Your task to perform on an android device: Open the calendar app, open the side menu, and click the "Day" option Image 0: 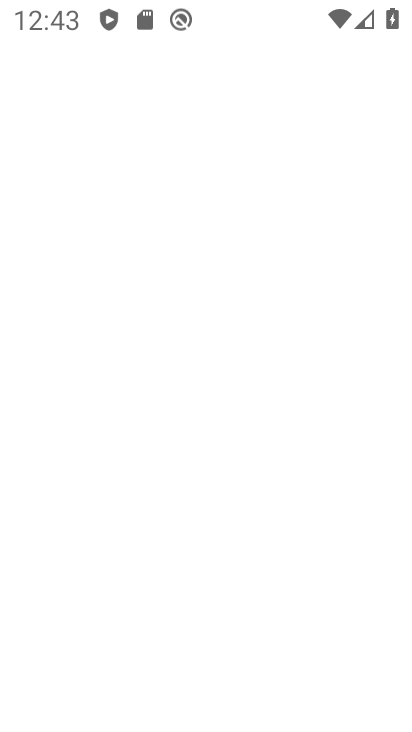
Step 0: click (359, 529)
Your task to perform on an android device: Open the calendar app, open the side menu, and click the "Day" option Image 1: 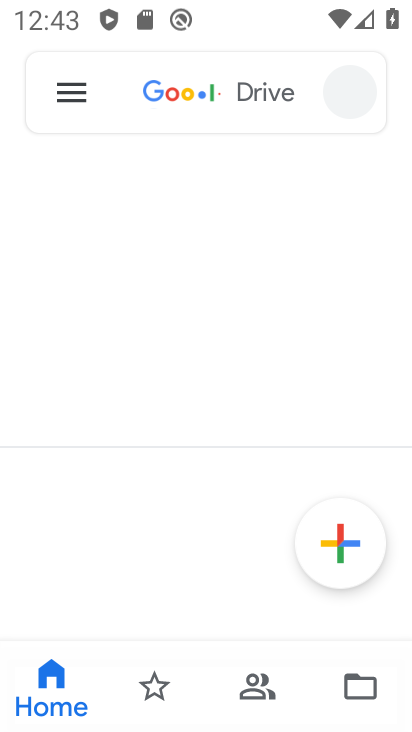
Step 1: press home button
Your task to perform on an android device: Open the calendar app, open the side menu, and click the "Day" option Image 2: 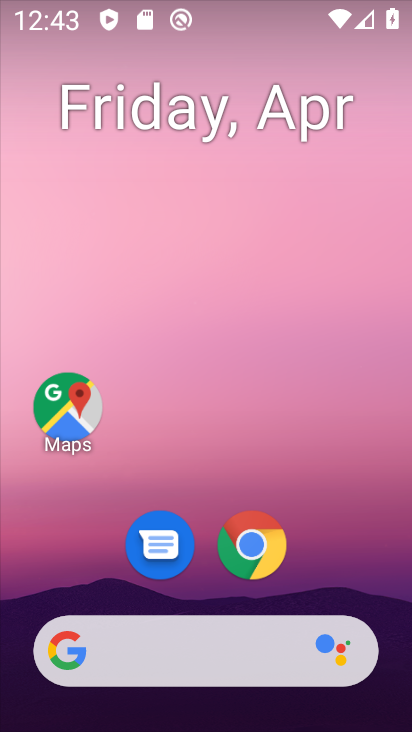
Step 2: drag from (237, 360) to (224, 6)
Your task to perform on an android device: Open the calendar app, open the side menu, and click the "Day" option Image 3: 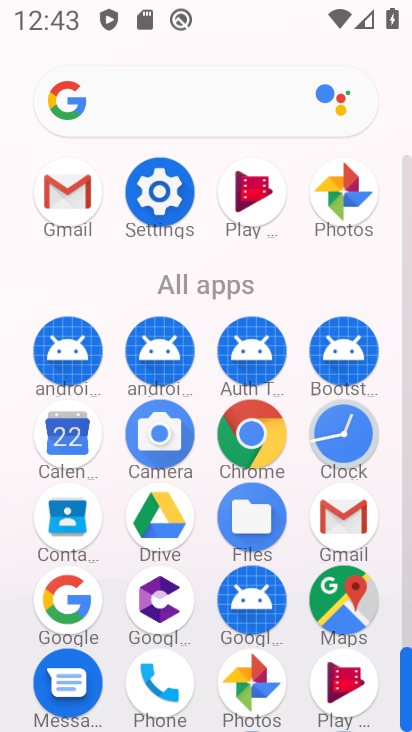
Step 3: click (61, 426)
Your task to perform on an android device: Open the calendar app, open the side menu, and click the "Day" option Image 4: 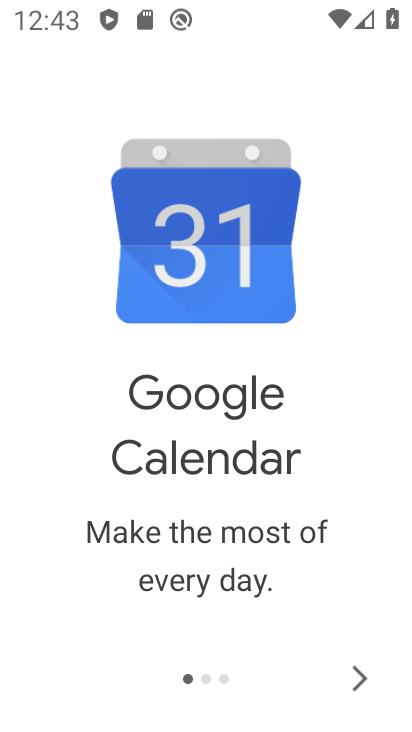
Step 4: click (359, 672)
Your task to perform on an android device: Open the calendar app, open the side menu, and click the "Day" option Image 5: 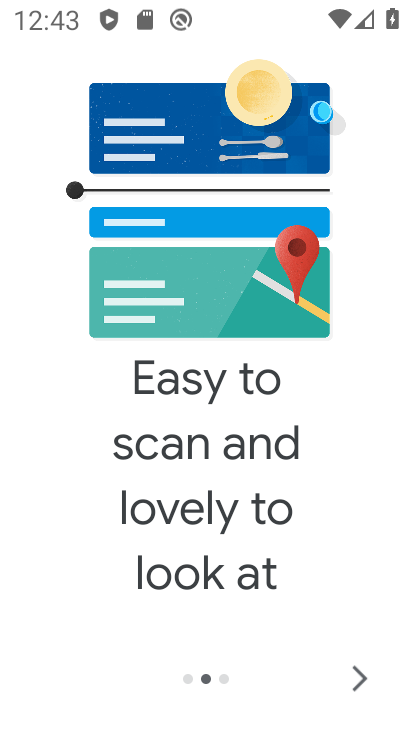
Step 5: click (359, 665)
Your task to perform on an android device: Open the calendar app, open the side menu, and click the "Day" option Image 6: 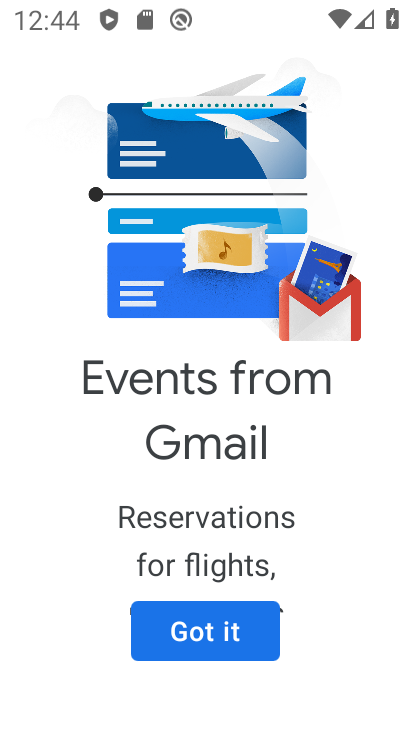
Step 6: click (241, 640)
Your task to perform on an android device: Open the calendar app, open the side menu, and click the "Day" option Image 7: 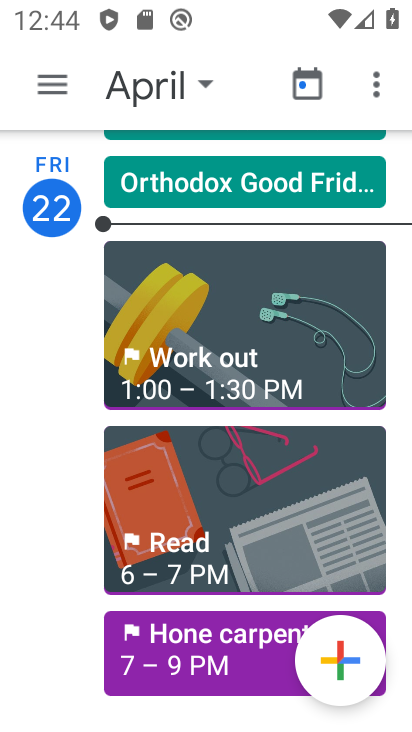
Step 7: click (45, 87)
Your task to perform on an android device: Open the calendar app, open the side menu, and click the "Day" option Image 8: 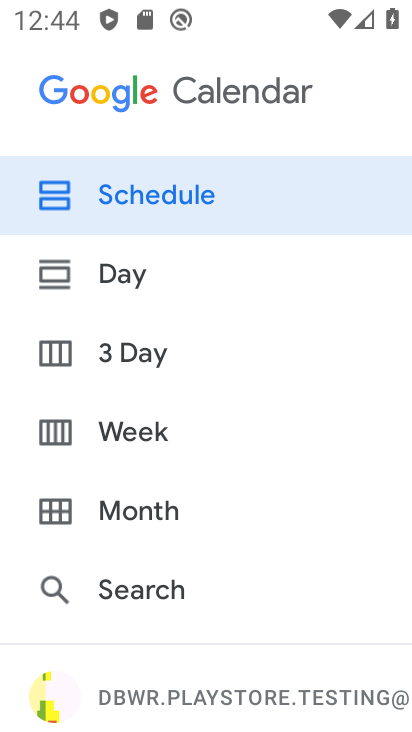
Step 8: click (133, 270)
Your task to perform on an android device: Open the calendar app, open the side menu, and click the "Day" option Image 9: 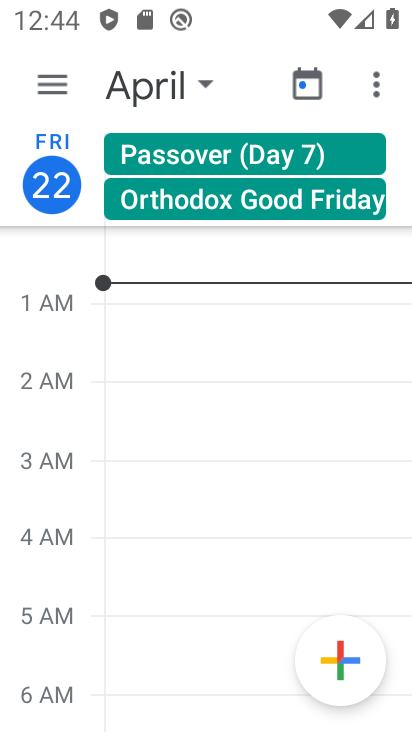
Step 9: task complete